Your task to perform on an android device: What is the news today? Image 0: 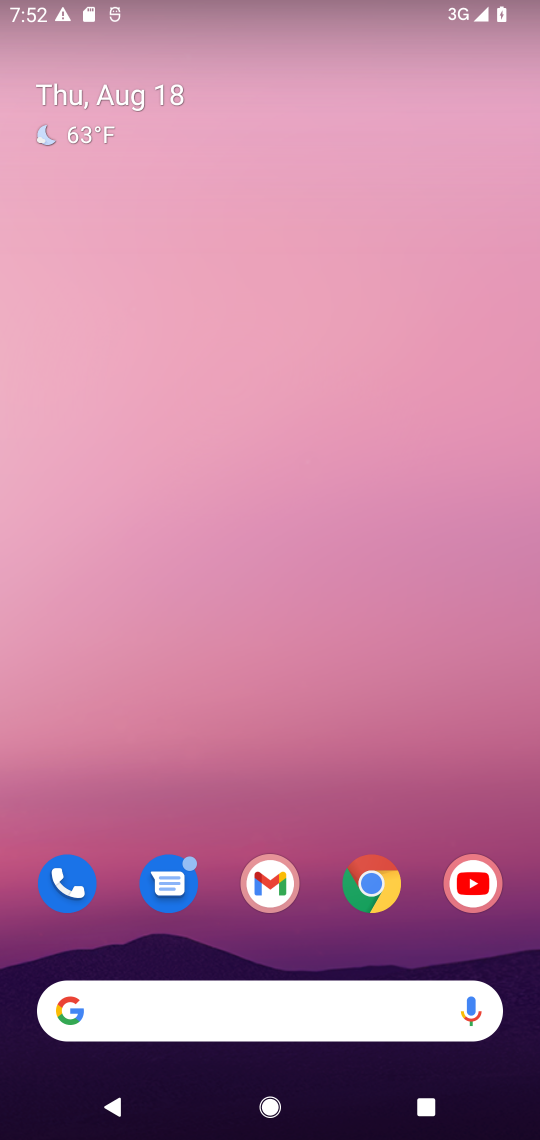
Step 0: click (149, 1008)
Your task to perform on an android device: What is the news today? Image 1: 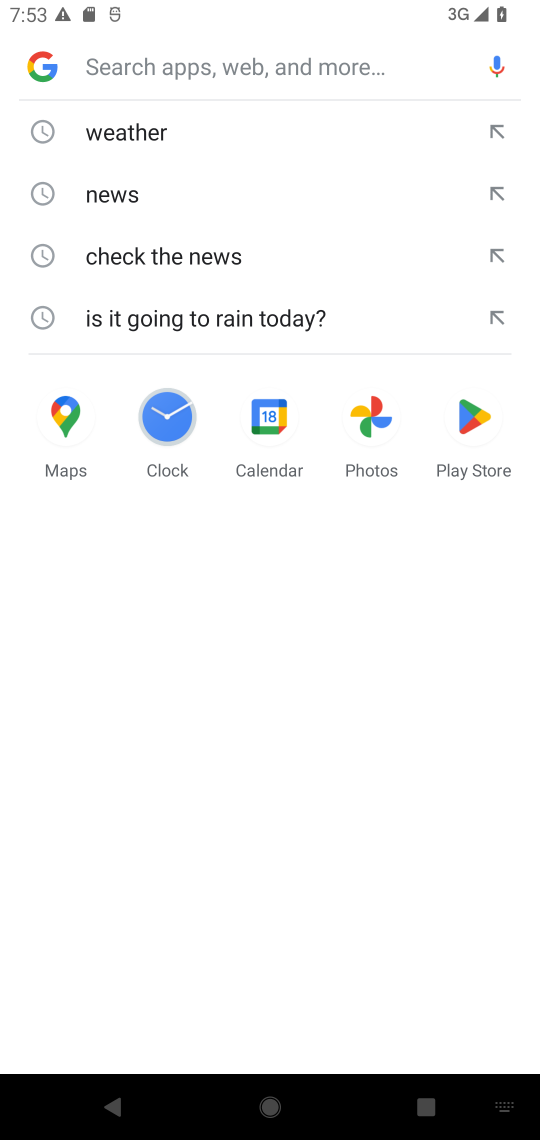
Step 1: type "What is the news today?"
Your task to perform on an android device: What is the news today? Image 2: 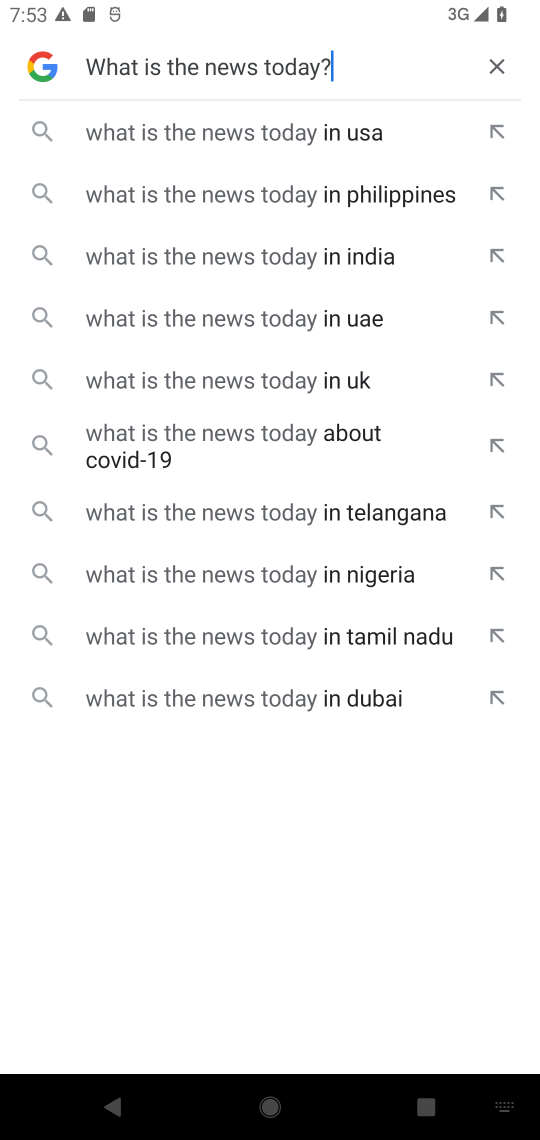
Step 2: type ""
Your task to perform on an android device: What is the news today? Image 3: 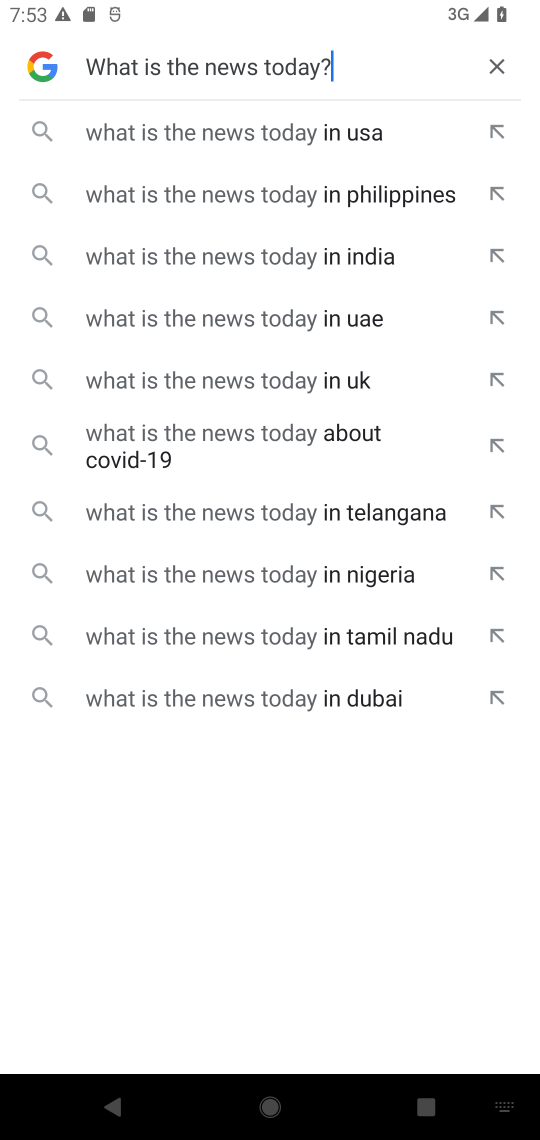
Step 3: type ""
Your task to perform on an android device: What is the news today? Image 4: 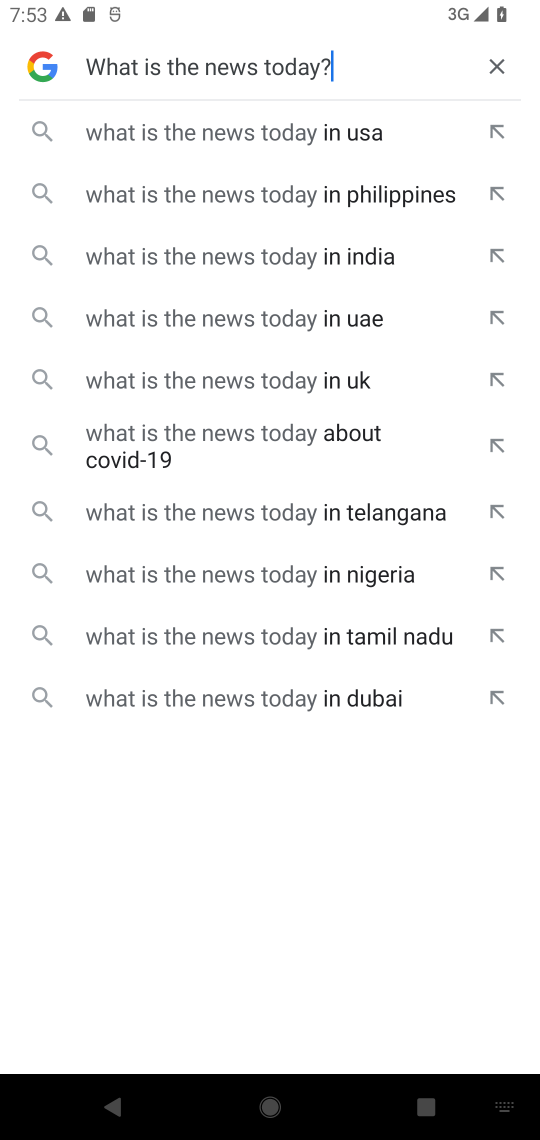
Step 4: task complete